Your task to perform on an android device: Clear the shopping cart on bestbuy. Add usb-c to usb-b to the cart on bestbuy, then select checkout. Image 0: 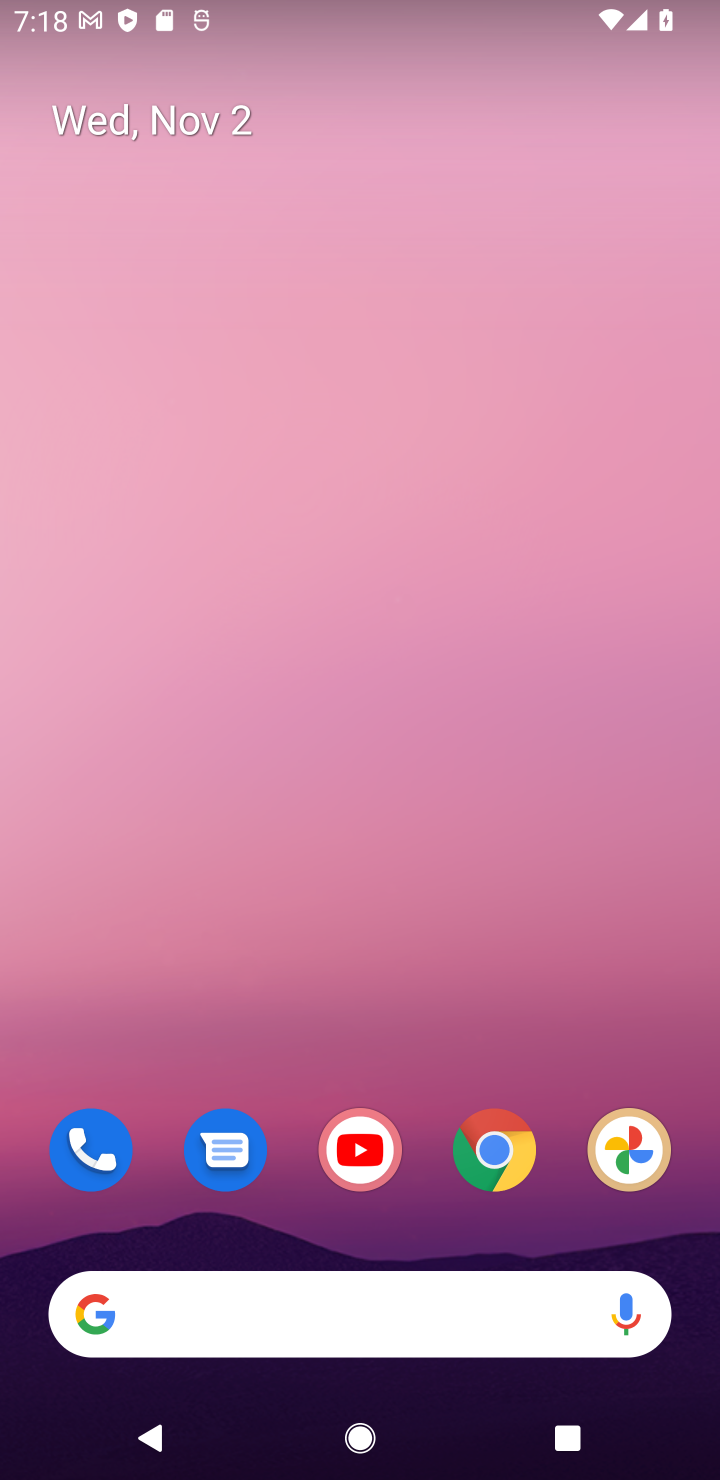
Step 0: click (494, 1158)
Your task to perform on an android device: Clear the shopping cart on bestbuy. Add usb-c to usb-b to the cart on bestbuy, then select checkout. Image 1: 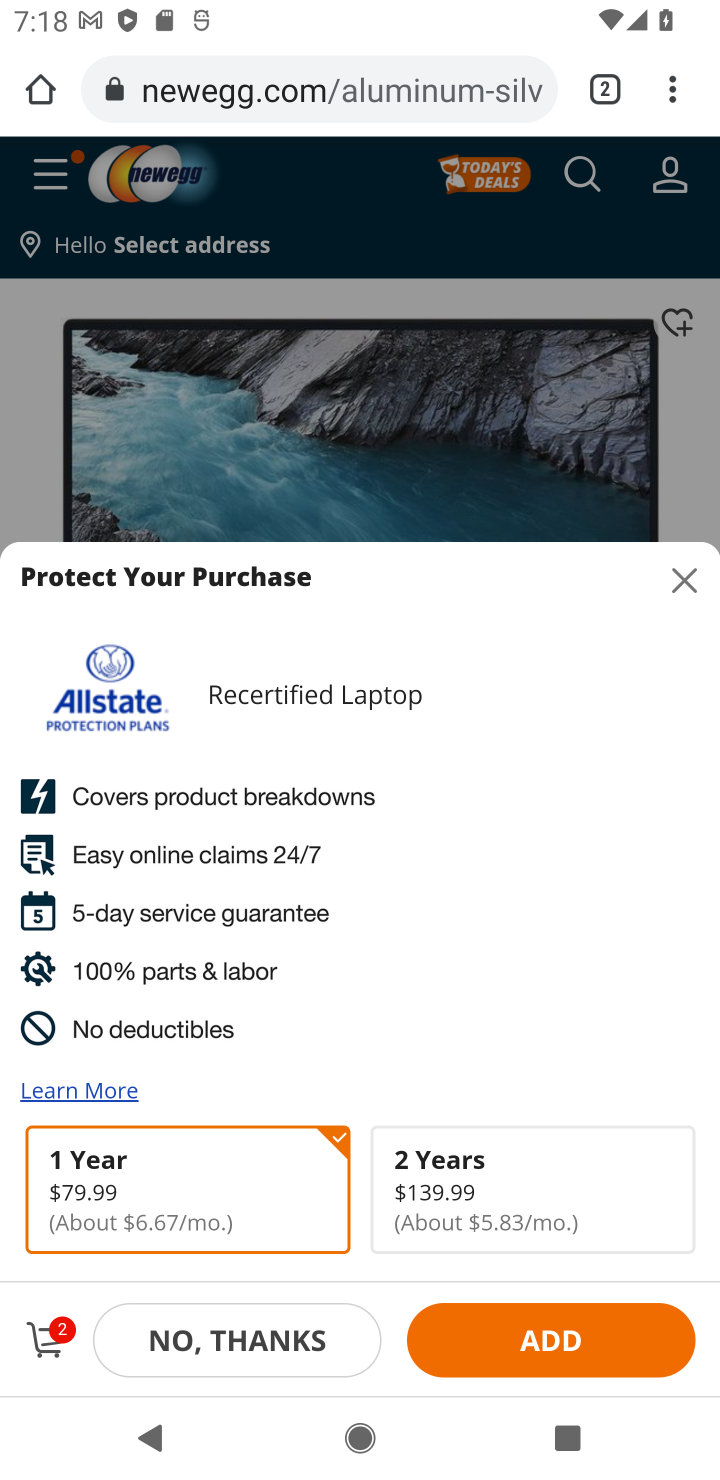
Step 1: click (615, 92)
Your task to perform on an android device: Clear the shopping cart on bestbuy. Add usb-c to usb-b to the cart on bestbuy, then select checkout. Image 2: 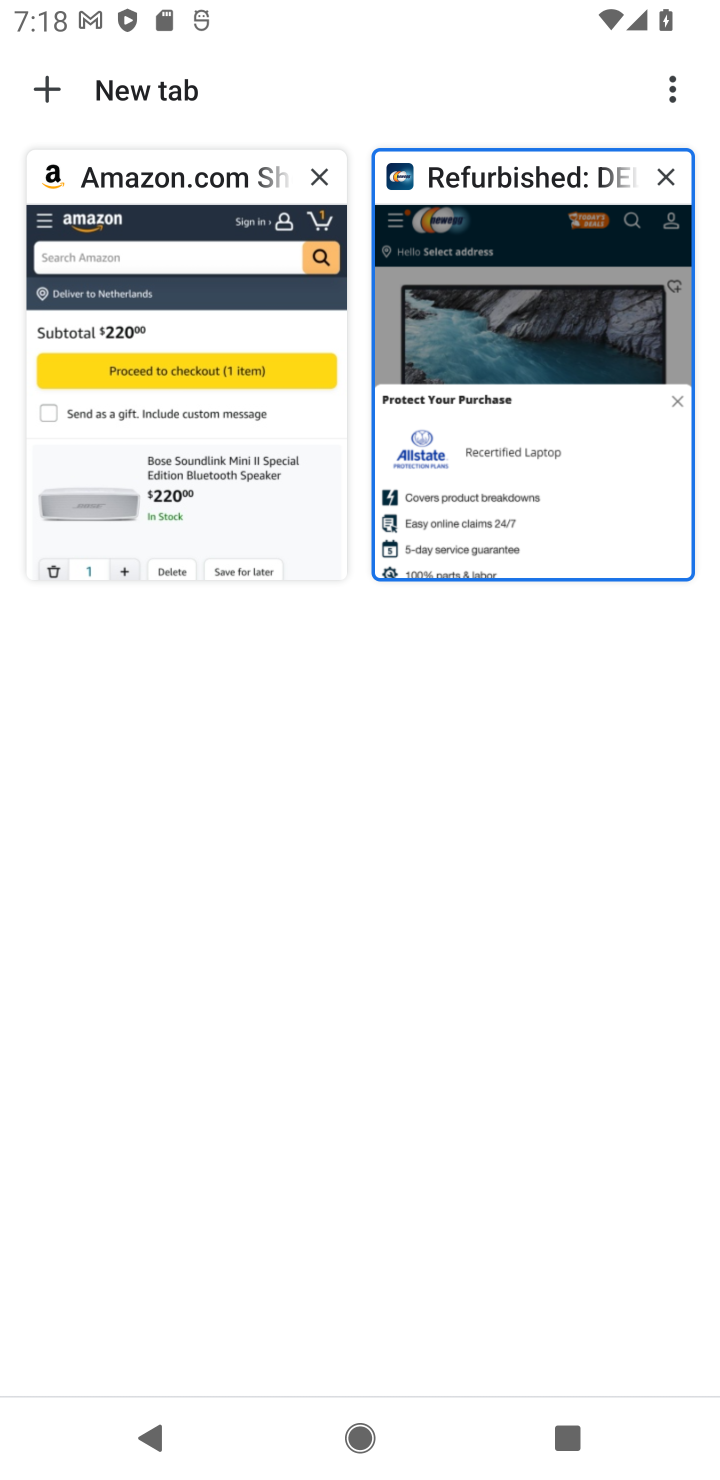
Step 2: click (46, 101)
Your task to perform on an android device: Clear the shopping cart on bestbuy. Add usb-c to usb-b to the cart on bestbuy, then select checkout. Image 3: 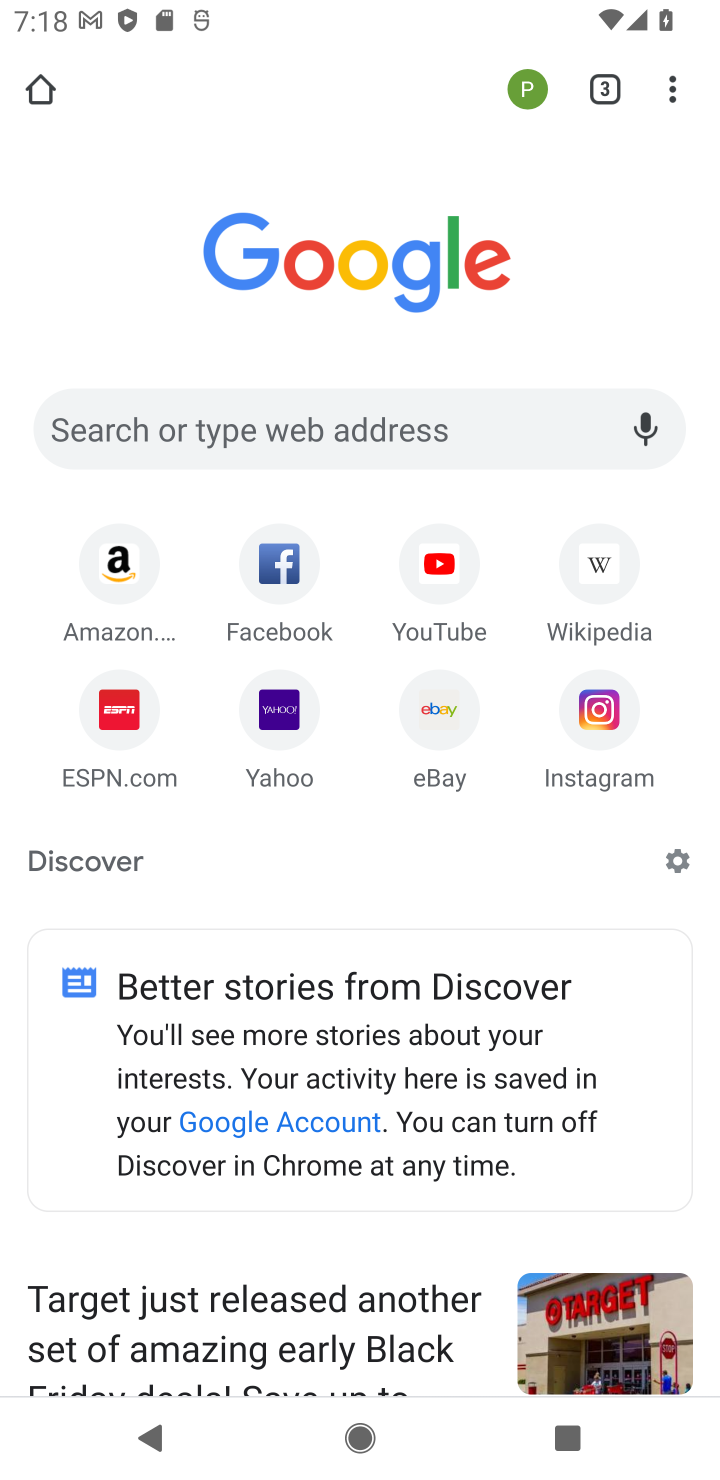
Step 3: click (381, 435)
Your task to perform on an android device: Clear the shopping cart on bestbuy. Add usb-c to usb-b to the cart on bestbuy, then select checkout. Image 4: 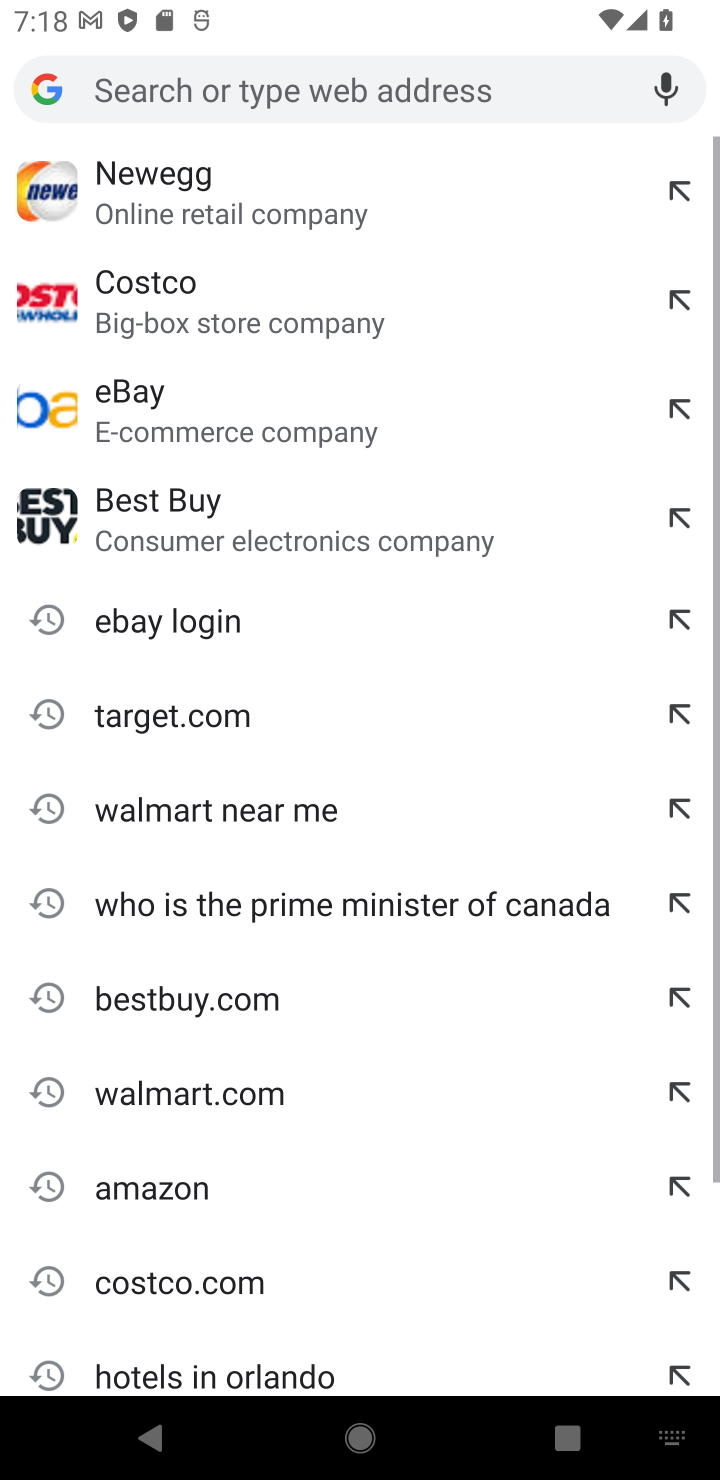
Step 4: type "bestbuy"
Your task to perform on an android device: Clear the shopping cart on bestbuy. Add usb-c to usb-b to the cart on bestbuy, then select checkout. Image 5: 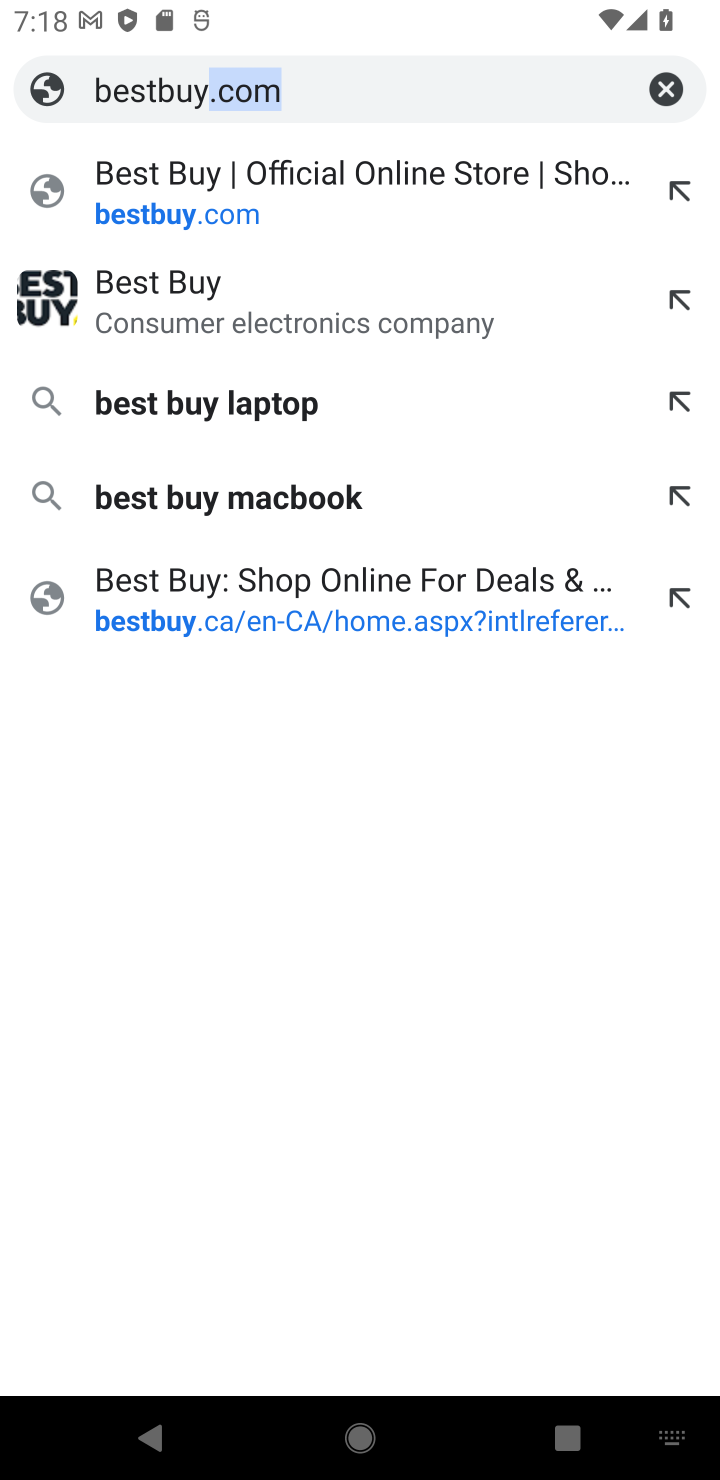
Step 5: click (180, 201)
Your task to perform on an android device: Clear the shopping cart on bestbuy. Add usb-c to usb-b to the cart on bestbuy, then select checkout. Image 6: 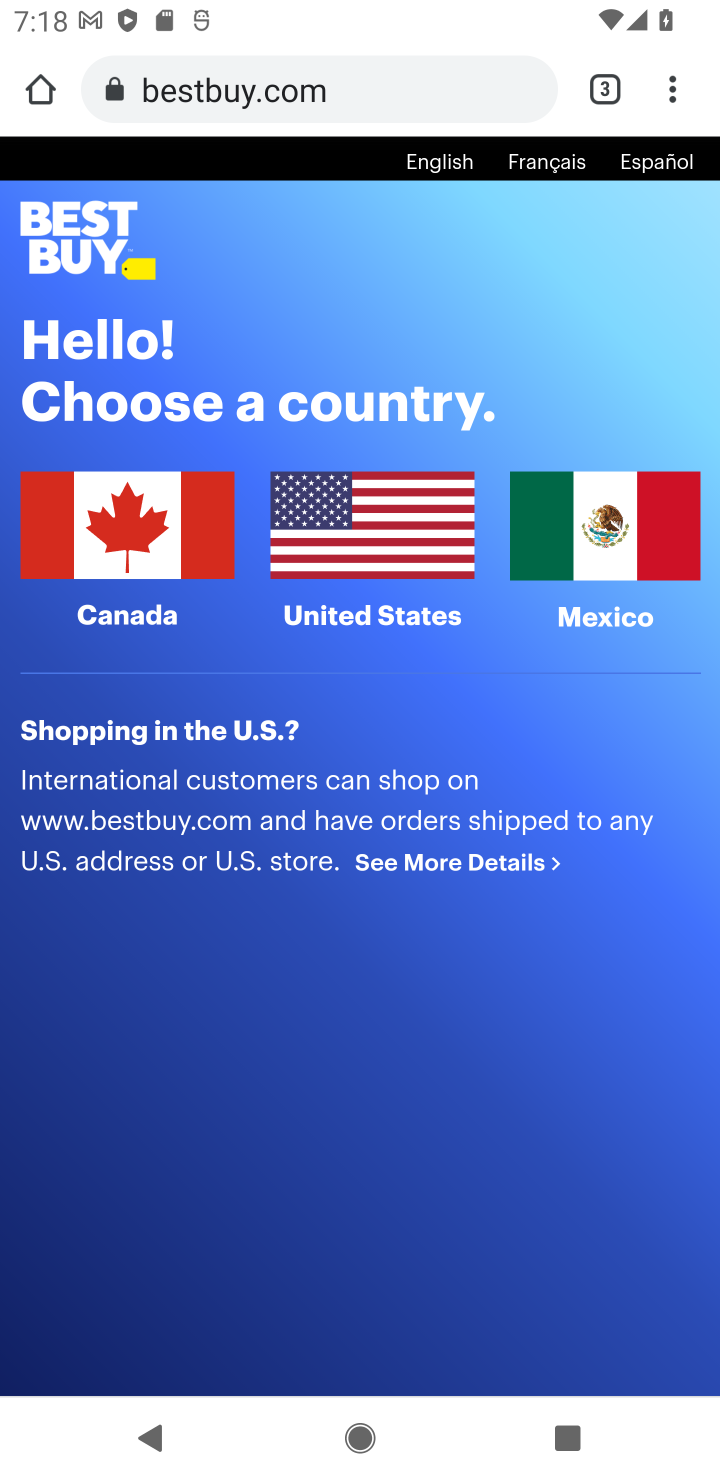
Step 6: click (362, 495)
Your task to perform on an android device: Clear the shopping cart on bestbuy. Add usb-c to usb-b to the cart on bestbuy, then select checkout. Image 7: 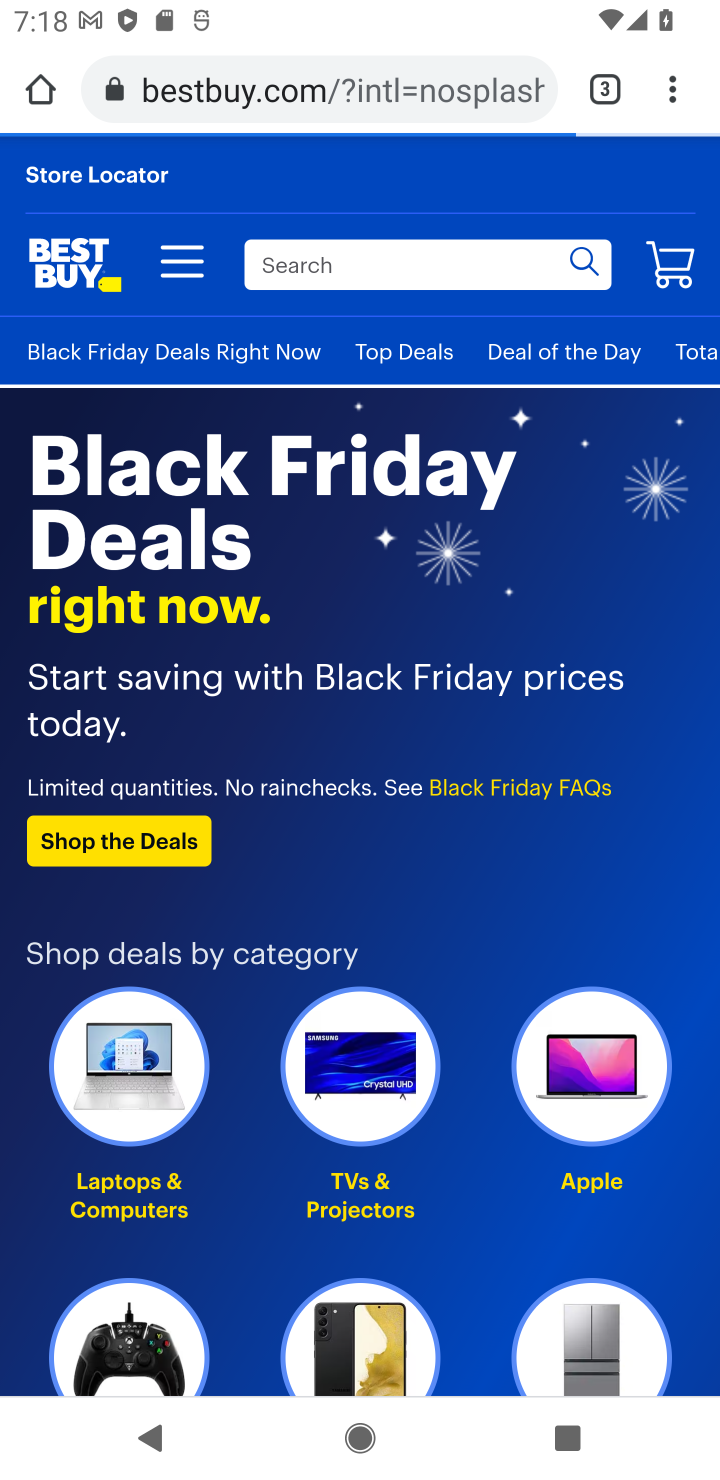
Step 7: click (362, 495)
Your task to perform on an android device: Clear the shopping cart on bestbuy. Add usb-c to usb-b to the cart on bestbuy, then select checkout. Image 8: 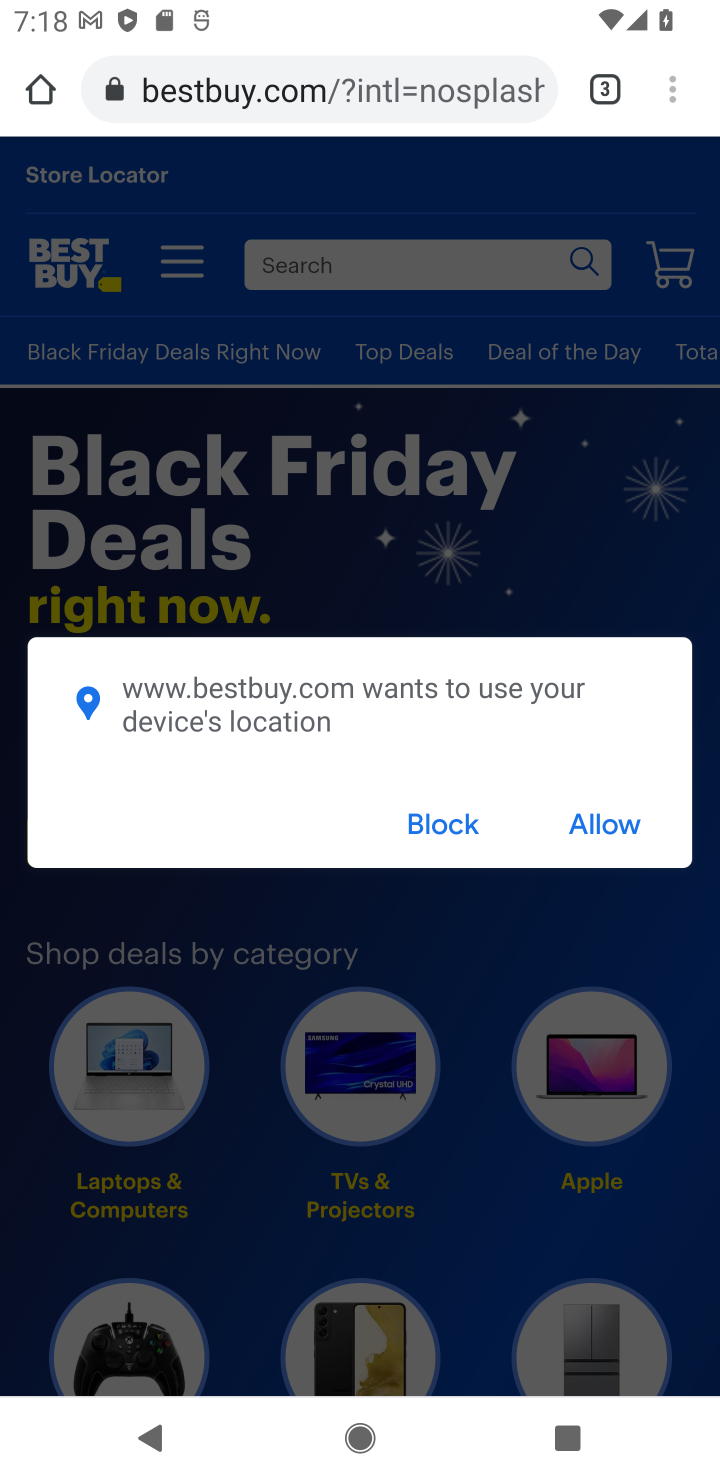
Step 8: click (425, 820)
Your task to perform on an android device: Clear the shopping cart on bestbuy. Add usb-c to usb-b to the cart on bestbuy, then select checkout. Image 9: 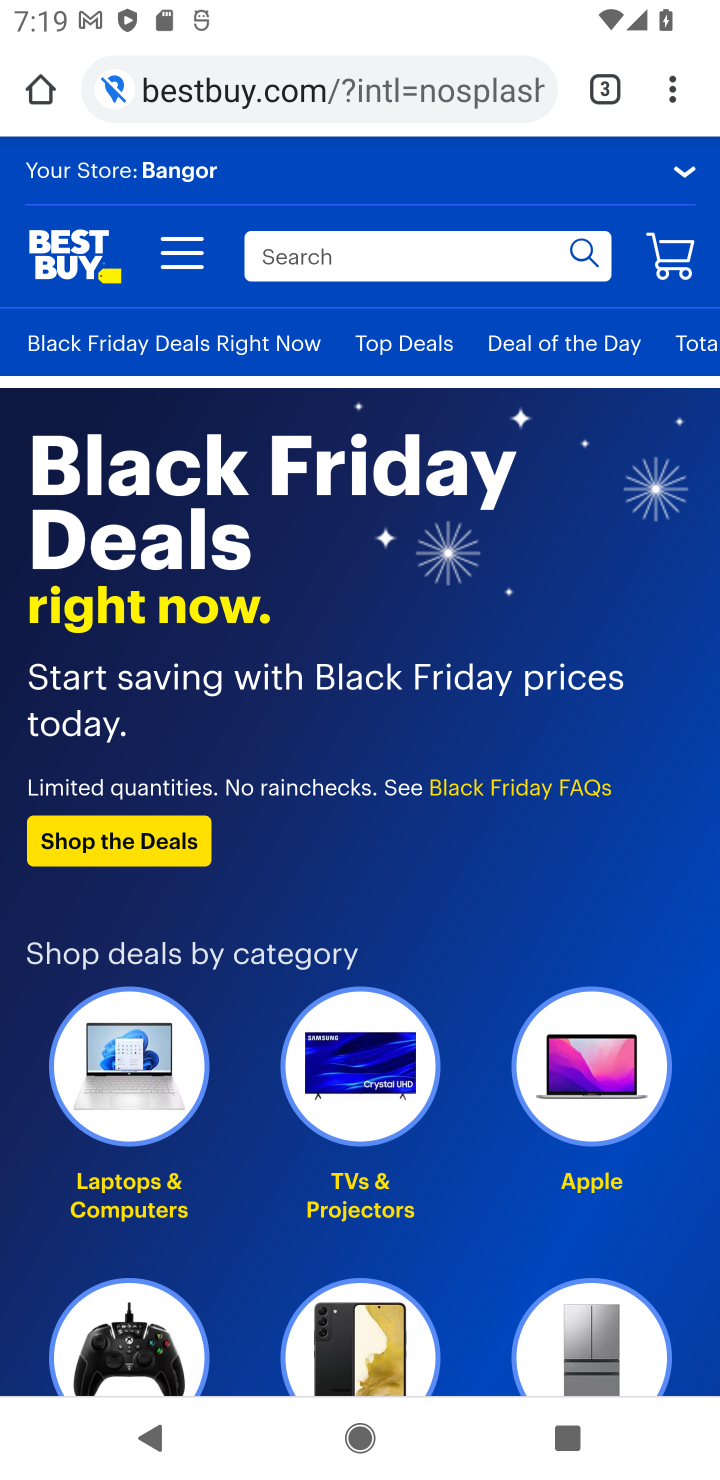
Step 9: click (346, 258)
Your task to perform on an android device: Clear the shopping cart on bestbuy. Add usb-c to usb-b to the cart on bestbuy, then select checkout. Image 10: 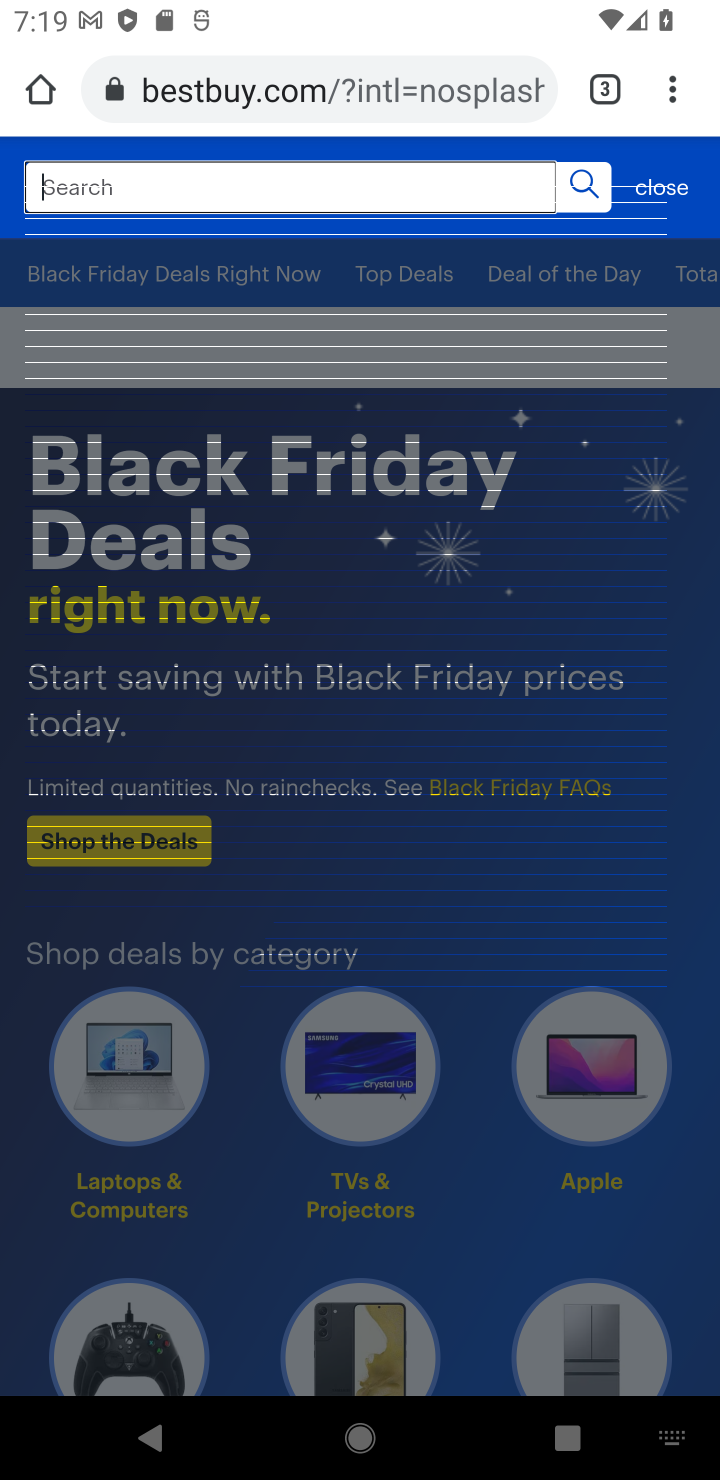
Step 10: type "usb-c to usb-b"
Your task to perform on an android device: Clear the shopping cart on bestbuy. Add usb-c to usb-b to the cart on bestbuy, then select checkout. Image 11: 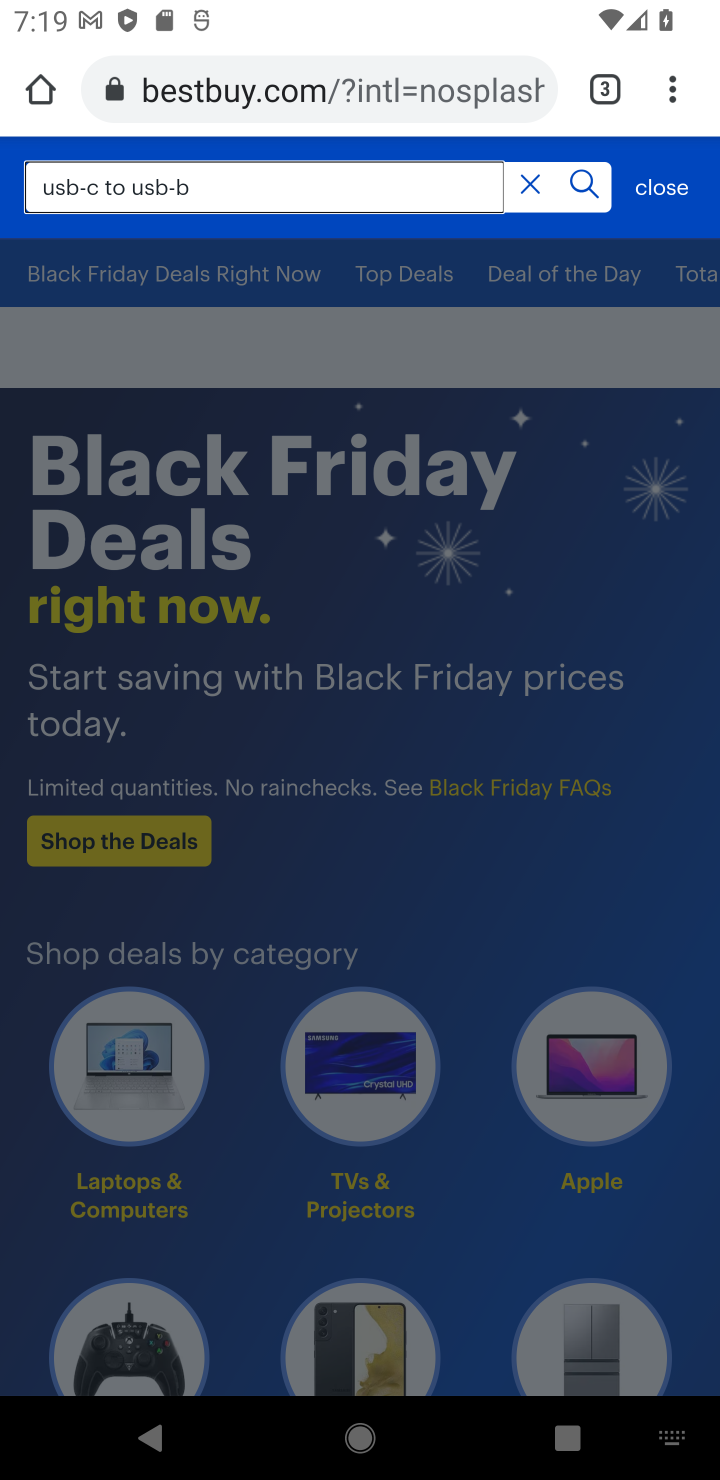
Step 11: click (593, 182)
Your task to perform on an android device: Clear the shopping cart on bestbuy. Add usb-c to usb-b to the cart on bestbuy, then select checkout. Image 12: 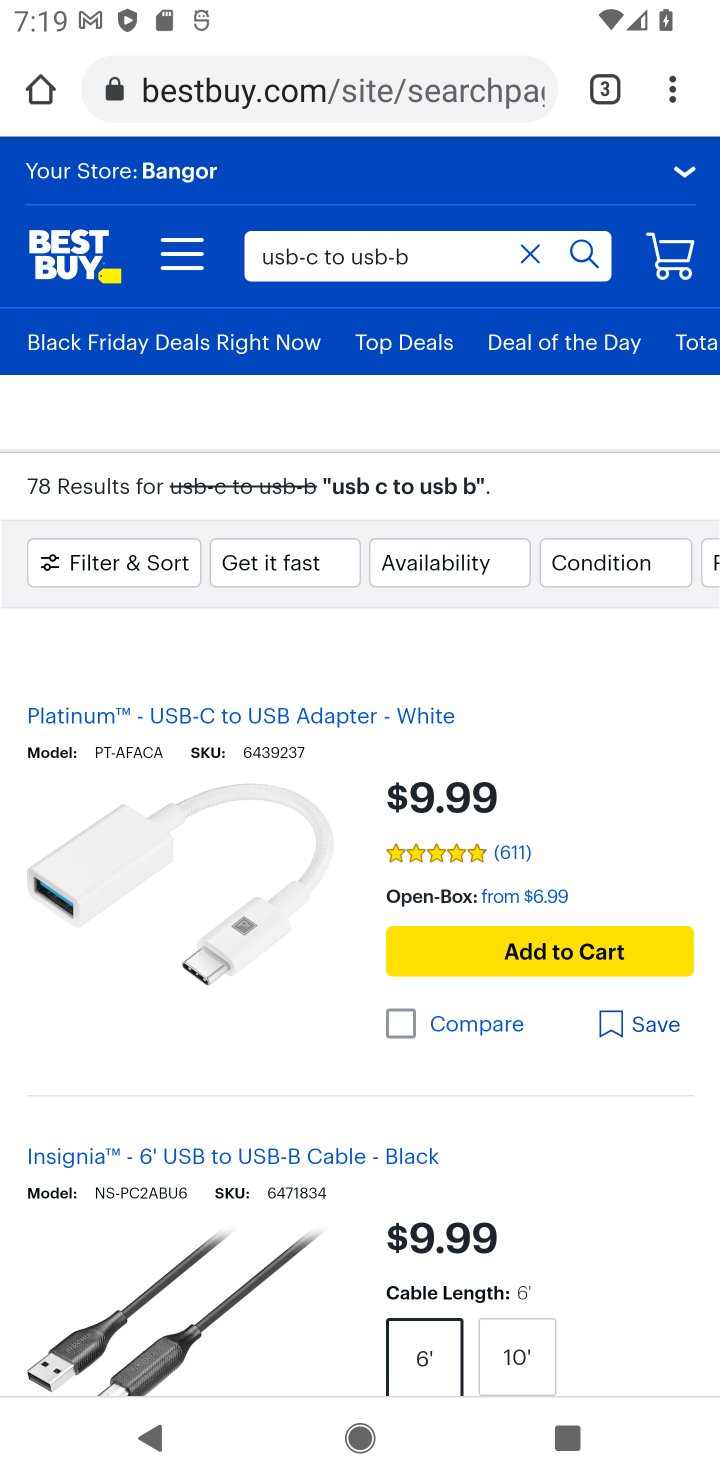
Step 12: click (516, 1028)
Your task to perform on an android device: Clear the shopping cart on bestbuy. Add usb-c to usb-b to the cart on bestbuy, then select checkout. Image 13: 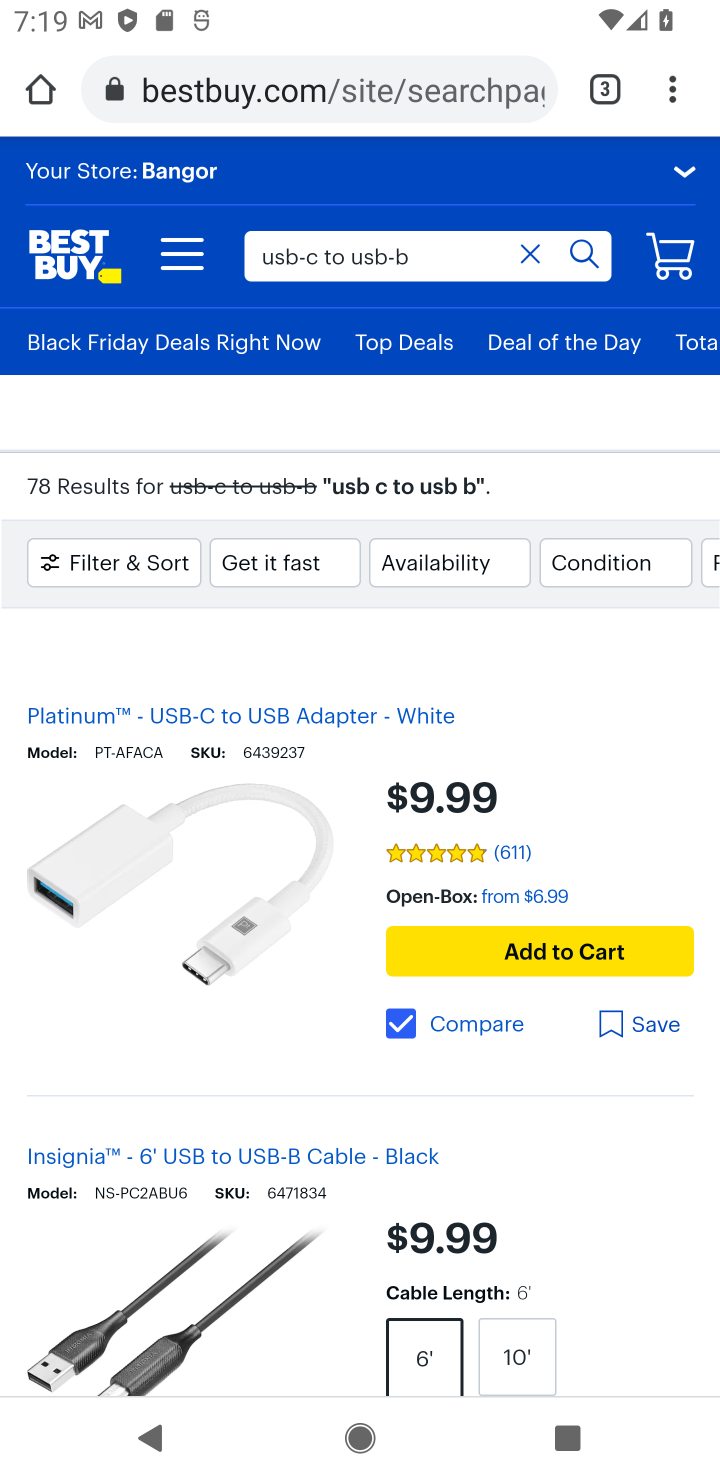
Step 13: click (565, 954)
Your task to perform on an android device: Clear the shopping cart on bestbuy. Add usb-c to usb-b to the cart on bestbuy, then select checkout. Image 14: 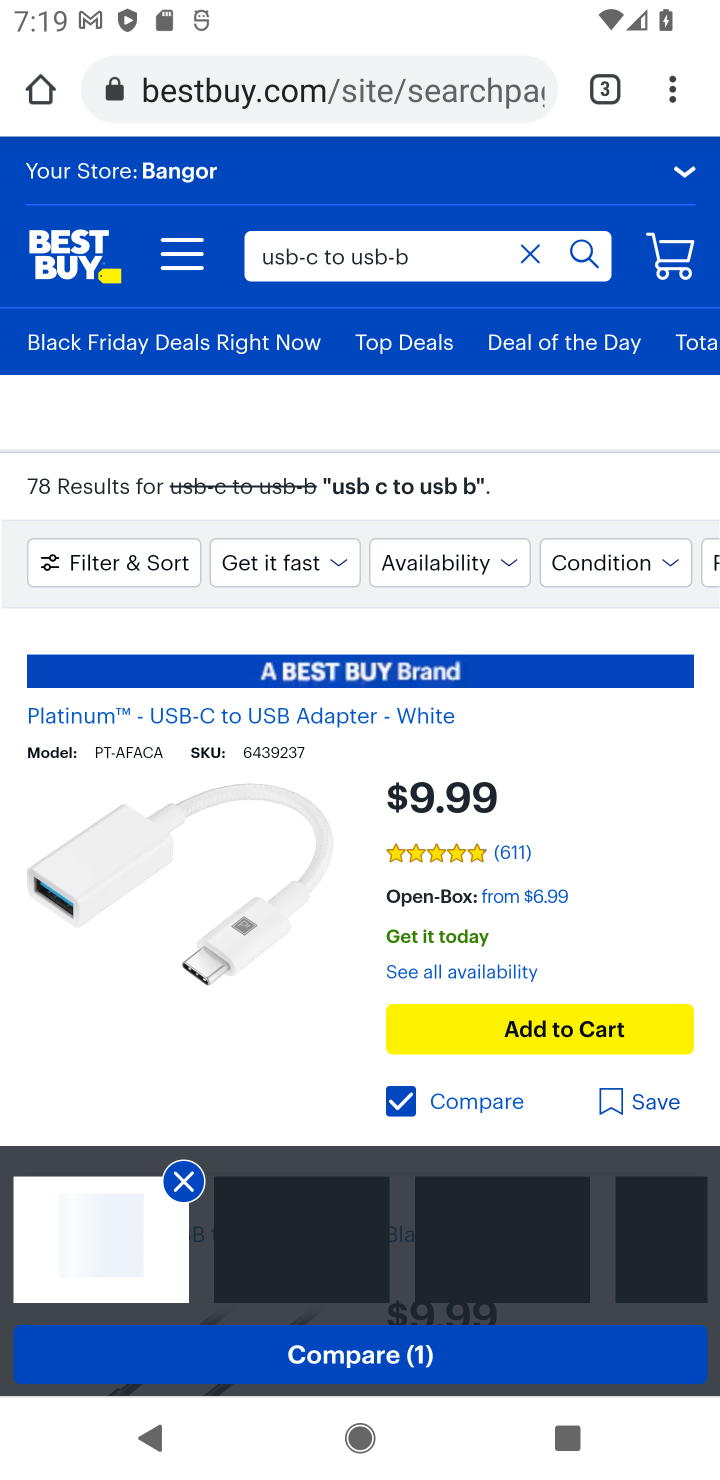
Step 14: click (557, 1034)
Your task to perform on an android device: Clear the shopping cart on bestbuy. Add usb-c to usb-b to the cart on bestbuy, then select checkout. Image 15: 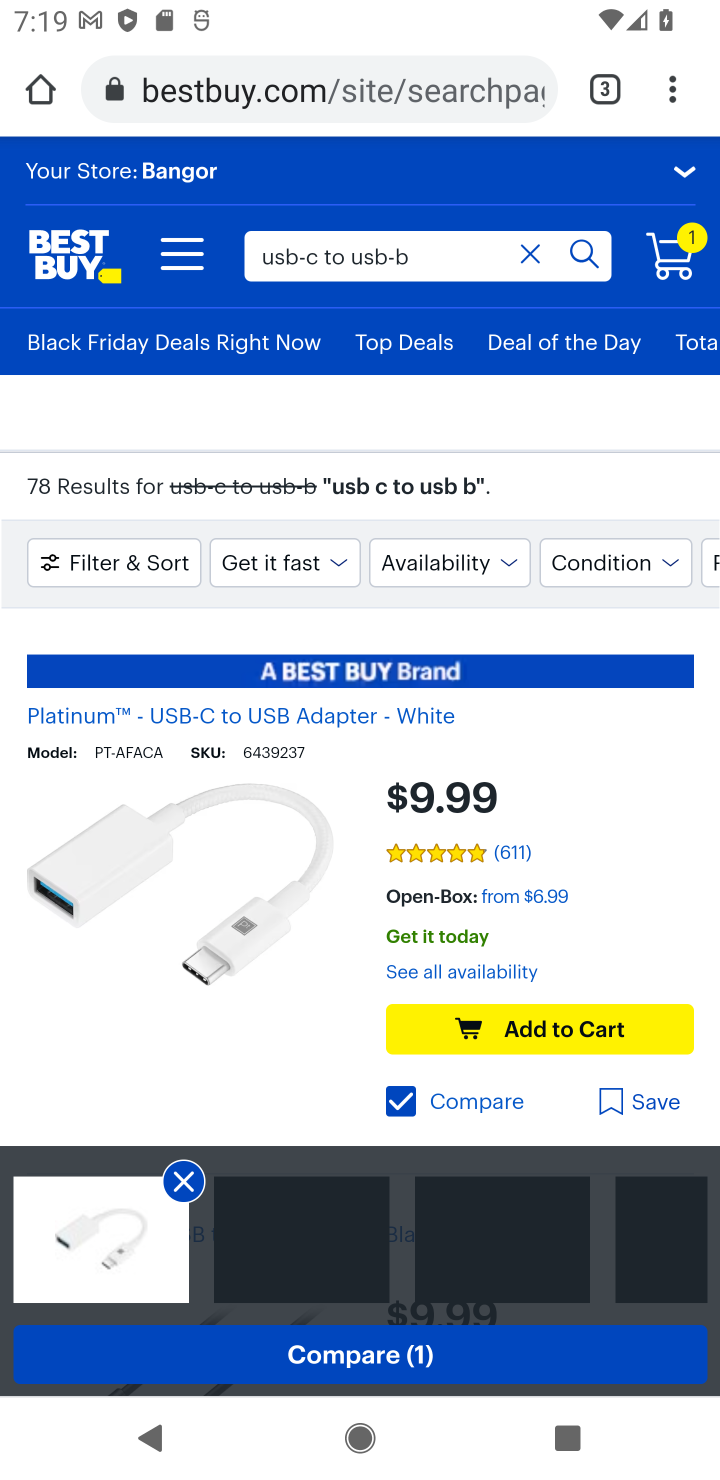
Step 15: click (182, 1181)
Your task to perform on an android device: Clear the shopping cart on bestbuy. Add usb-c to usb-b to the cart on bestbuy, then select checkout. Image 16: 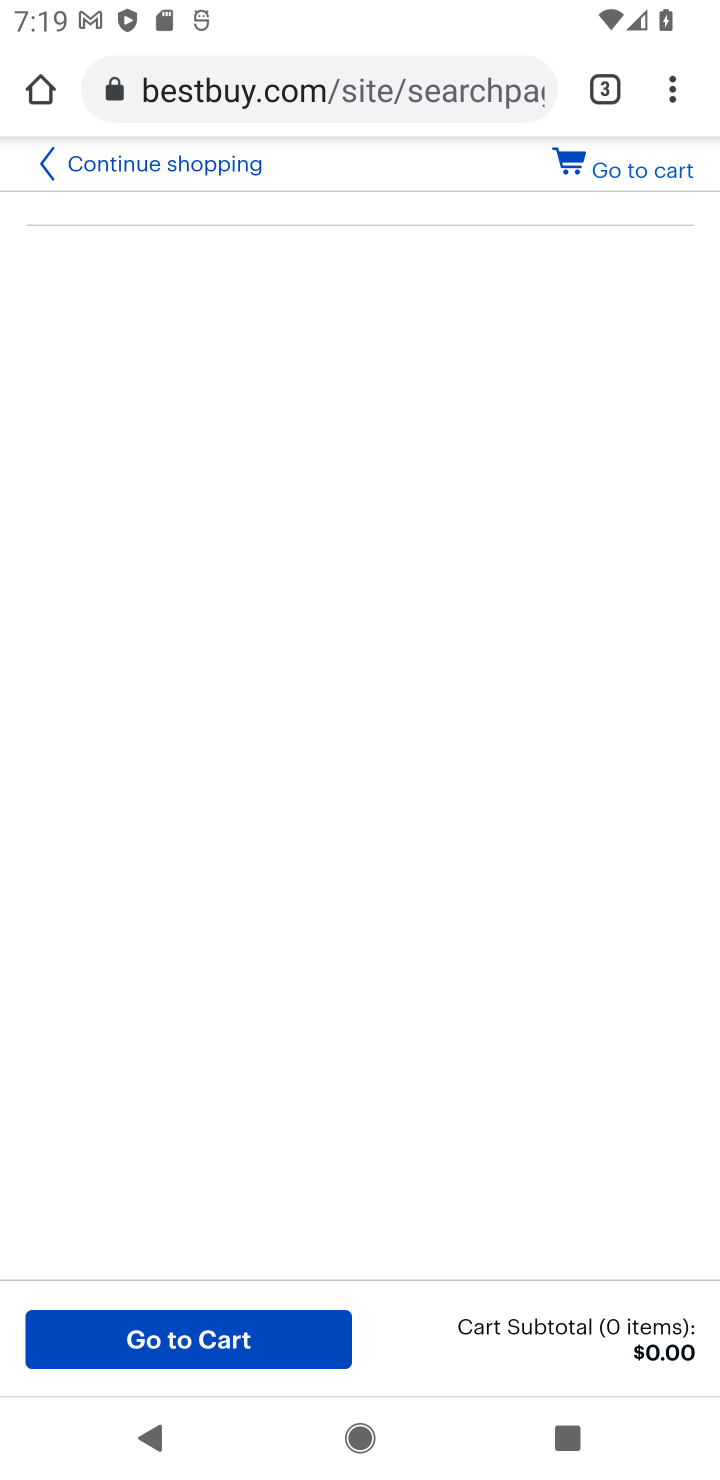
Step 16: click (687, 253)
Your task to perform on an android device: Clear the shopping cart on bestbuy. Add usb-c to usb-b to the cart on bestbuy, then select checkout. Image 17: 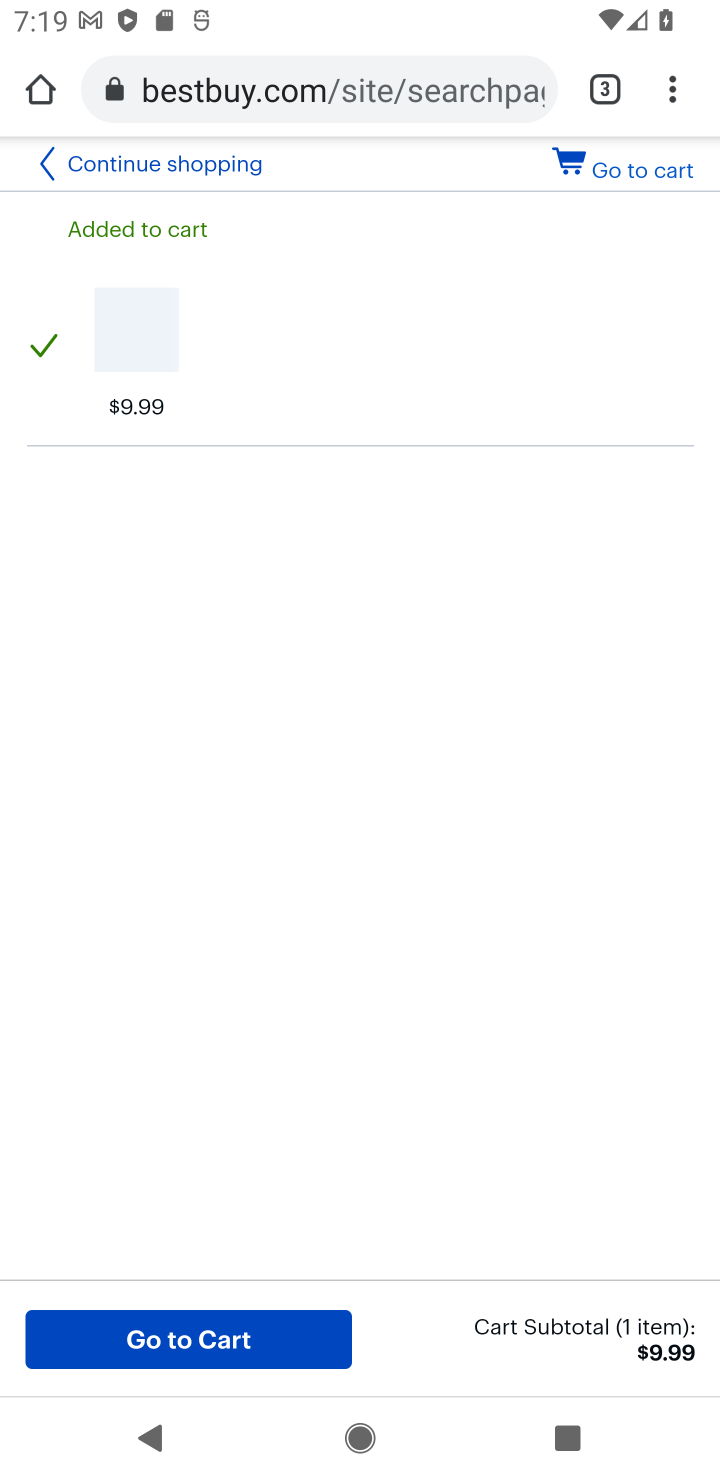
Step 17: click (213, 1340)
Your task to perform on an android device: Clear the shopping cart on bestbuy. Add usb-c to usb-b to the cart on bestbuy, then select checkout. Image 18: 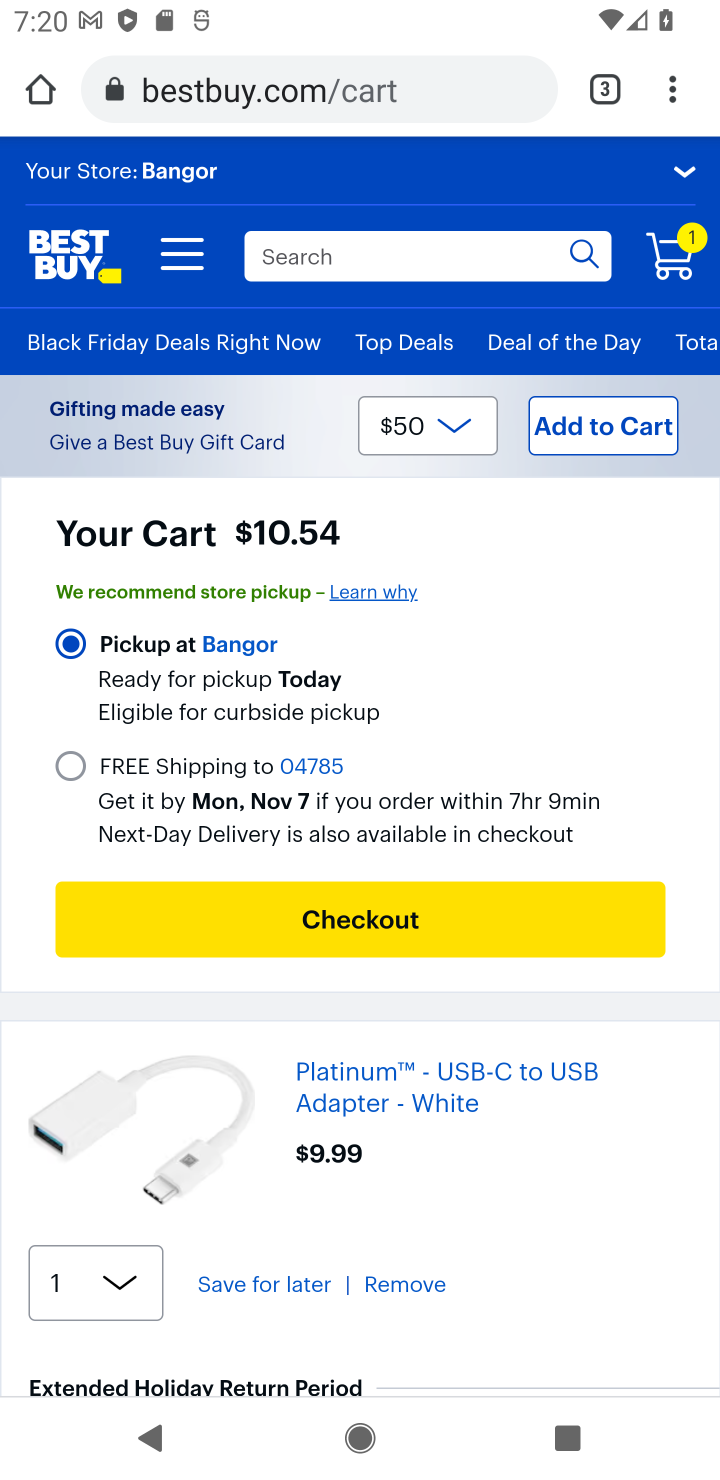
Step 18: click (515, 918)
Your task to perform on an android device: Clear the shopping cart on bestbuy. Add usb-c to usb-b to the cart on bestbuy, then select checkout. Image 19: 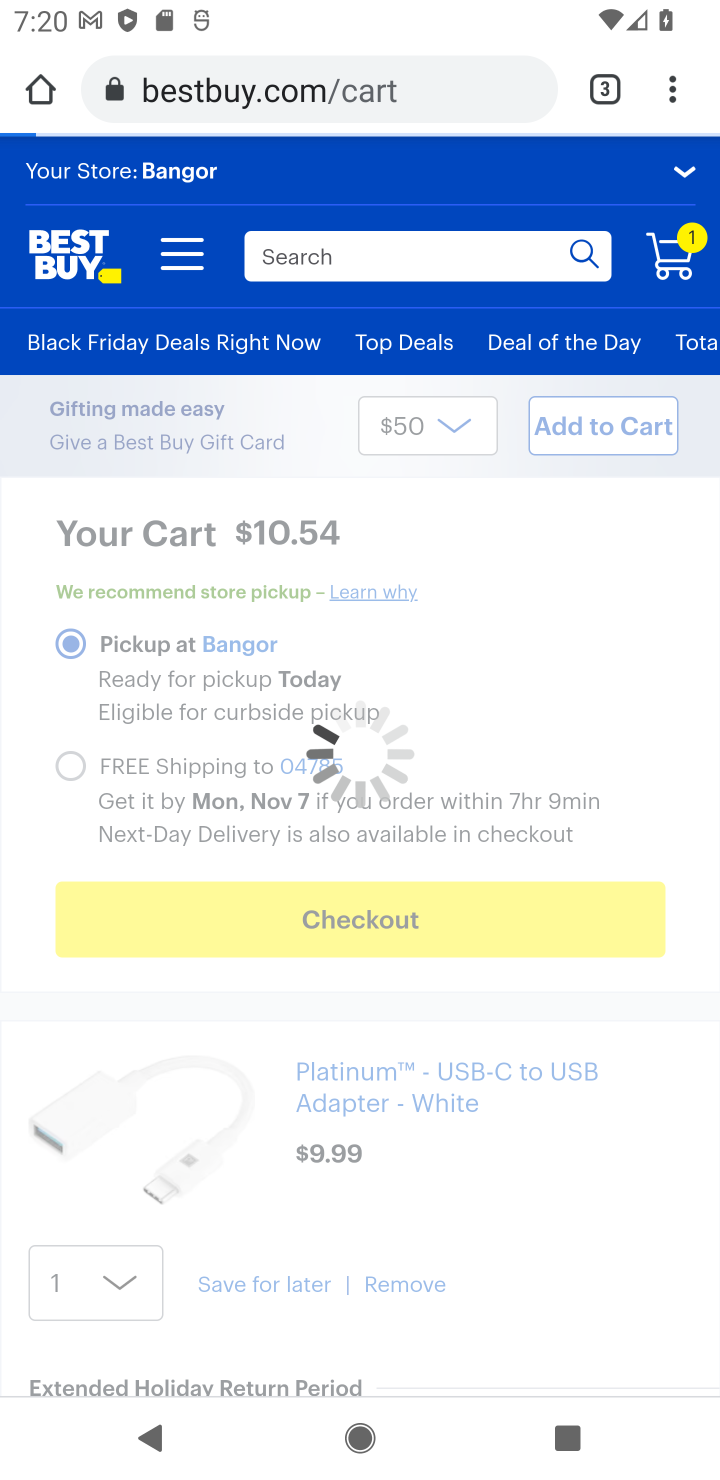
Step 19: task complete